Your task to perform on an android device: check out phone information Image 0: 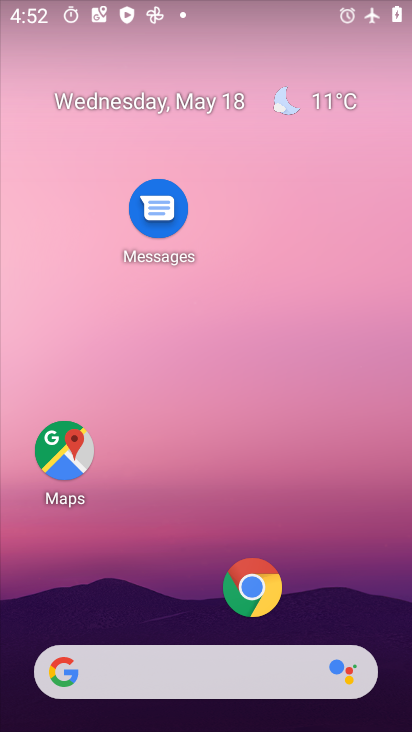
Step 0: drag from (250, 602) to (251, 526)
Your task to perform on an android device: check out phone information Image 1: 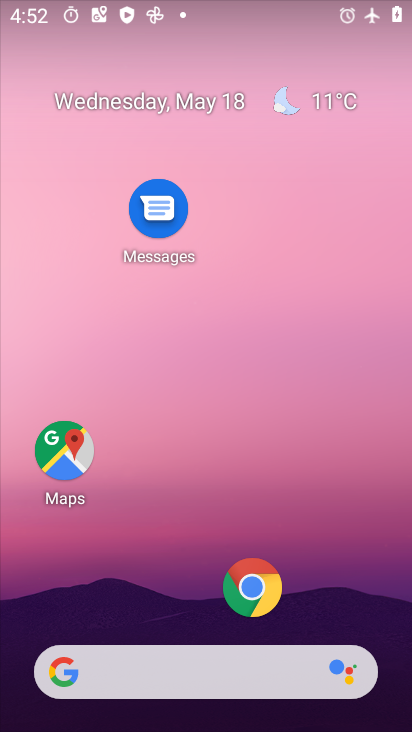
Step 1: drag from (272, 598) to (298, 225)
Your task to perform on an android device: check out phone information Image 2: 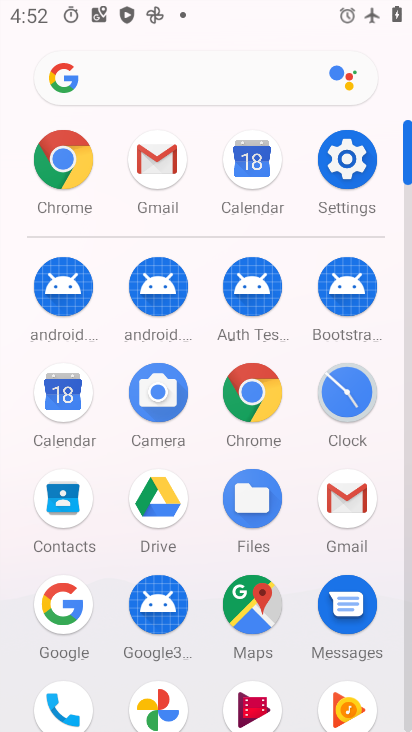
Step 2: click (347, 125)
Your task to perform on an android device: check out phone information Image 3: 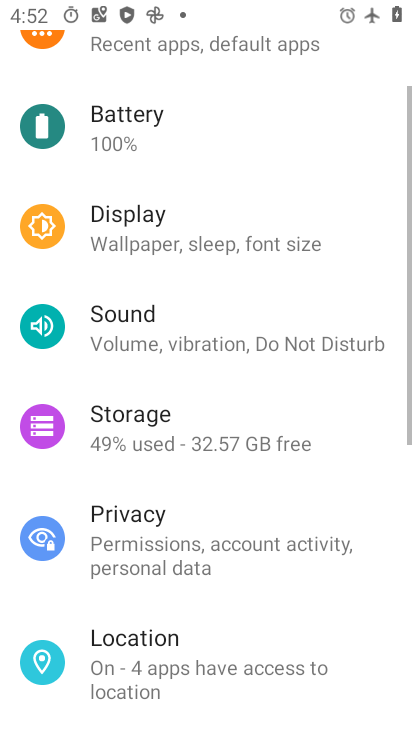
Step 3: drag from (206, 538) to (220, 421)
Your task to perform on an android device: check out phone information Image 4: 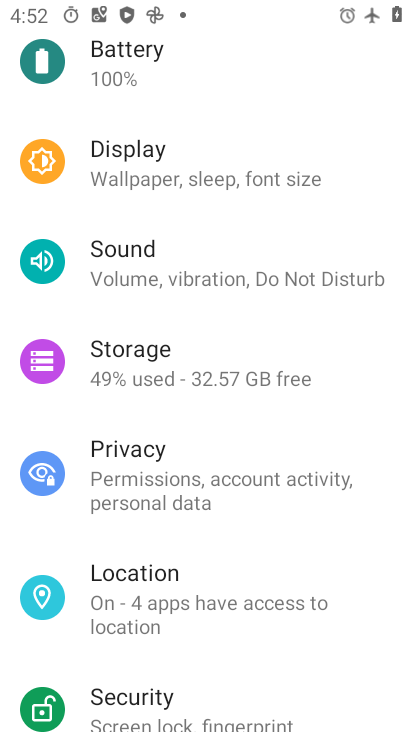
Step 4: drag from (237, 610) to (292, 22)
Your task to perform on an android device: check out phone information Image 5: 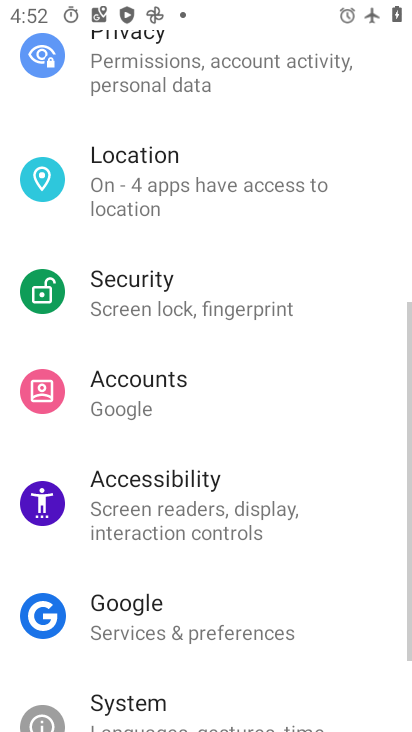
Step 5: drag from (220, 630) to (234, 433)
Your task to perform on an android device: check out phone information Image 6: 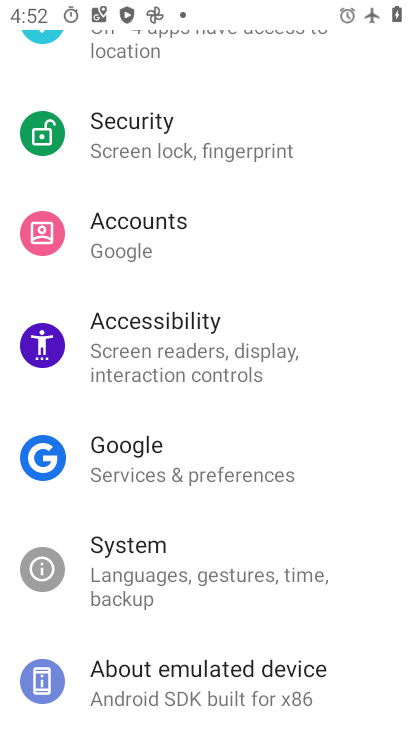
Step 6: drag from (211, 530) to (290, 194)
Your task to perform on an android device: check out phone information Image 7: 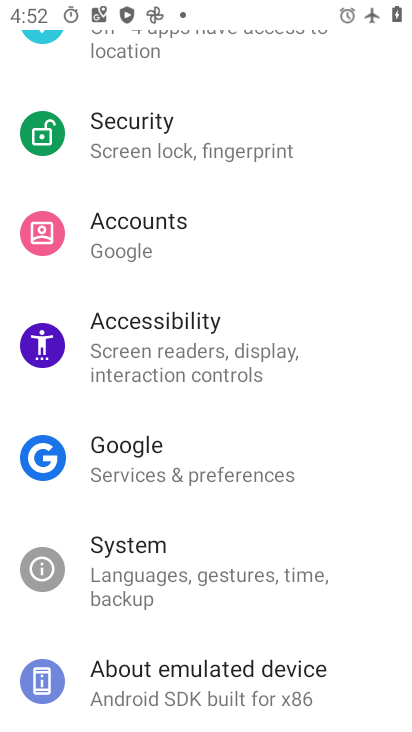
Step 7: click (187, 697)
Your task to perform on an android device: check out phone information Image 8: 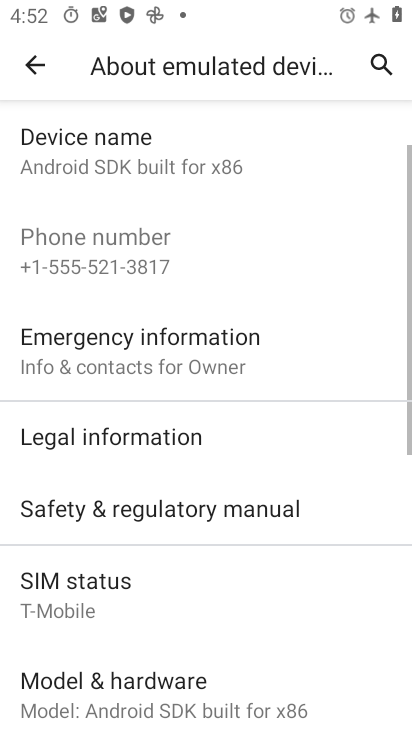
Step 8: task complete